Your task to perform on an android device: Open privacy settings Image 0: 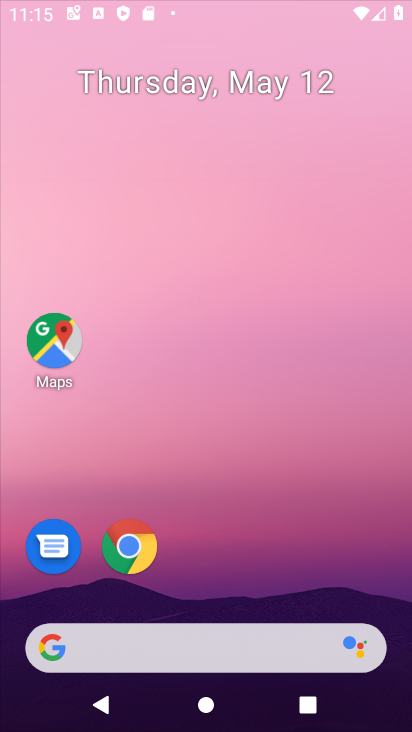
Step 0: drag from (366, 622) to (285, 207)
Your task to perform on an android device: Open privacy settings Image 1: 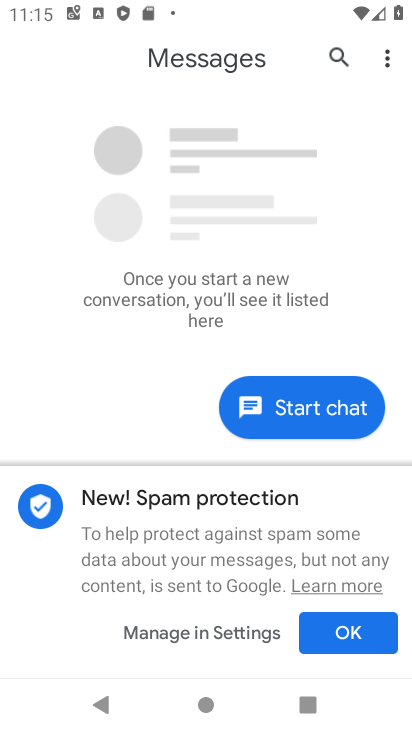
Step 1: press home button
Your task to perform on an android device: Open privacy settings Image 2: 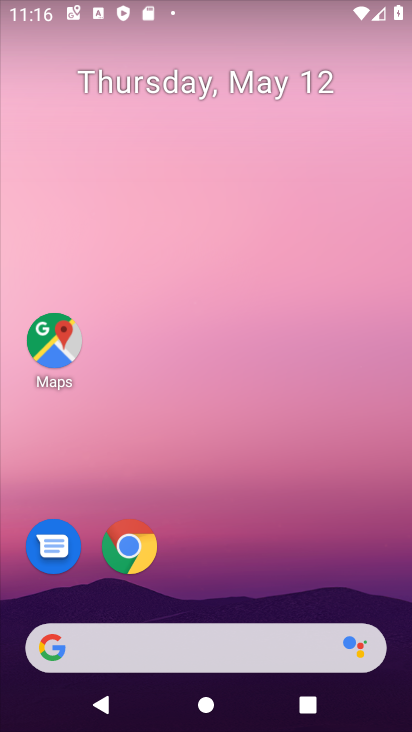
Step 2: drag from (241, 670) to (223, 242)
Your task to perform on an android device: Open privacy settings Image 3: 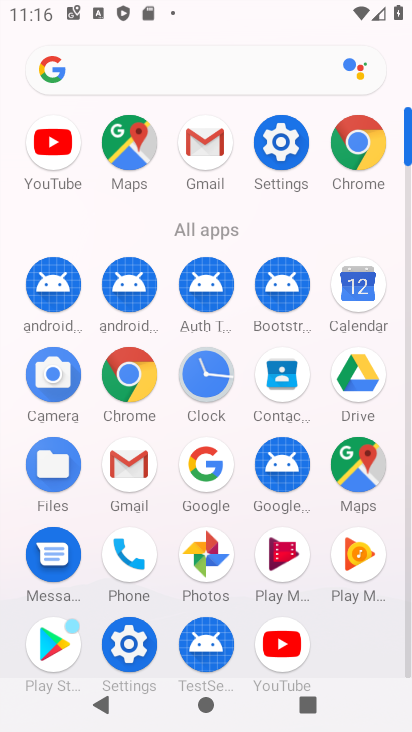
Step 3: click (275, 165)
Your task to perform on an android device: Open privacy settings Image 4: 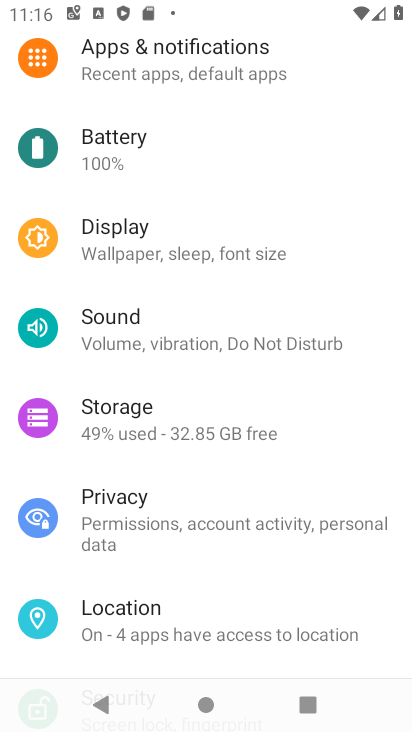
Step 4: click (174, 516)
Your task to perform on an android device: Open privacy settings Image 5: 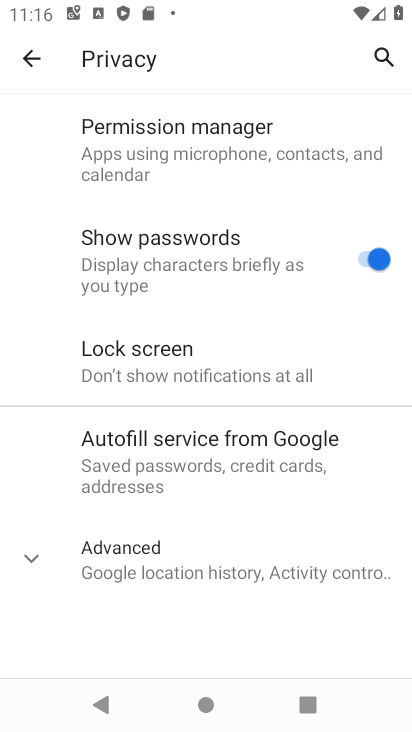
Step 5: task complete